Your task to perform on an android device: Open Wikipedia Image 0: 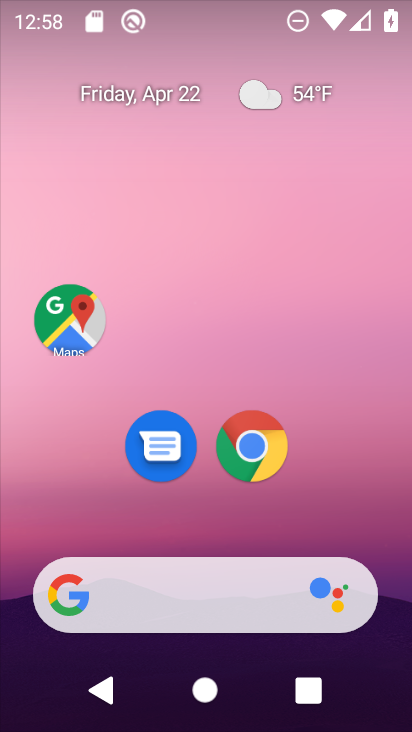
Step 0: click (272, 457)
Your task to perform on an android device: Open Wikipedia Image 1: 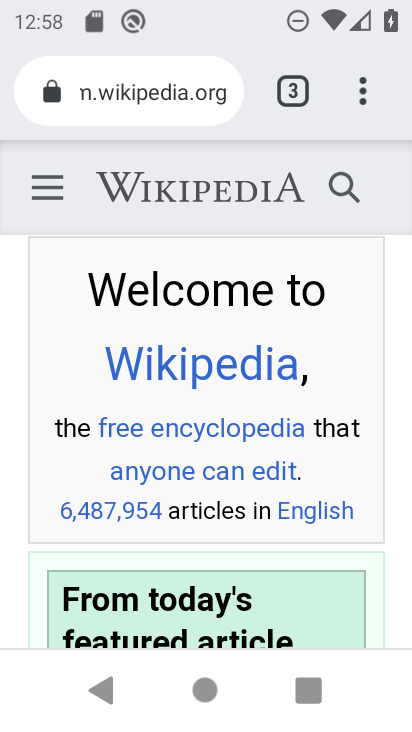
Step 1: task complete